Your task to perform on an android device: Search for pizza restaurants on Maps Image 0: 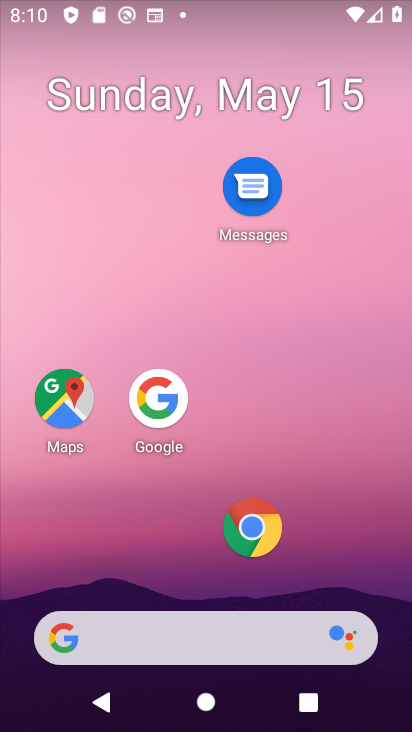
Step 0: press home button
Your task to perform on an android device: Search for pizza restaurants on Maps Image 1: 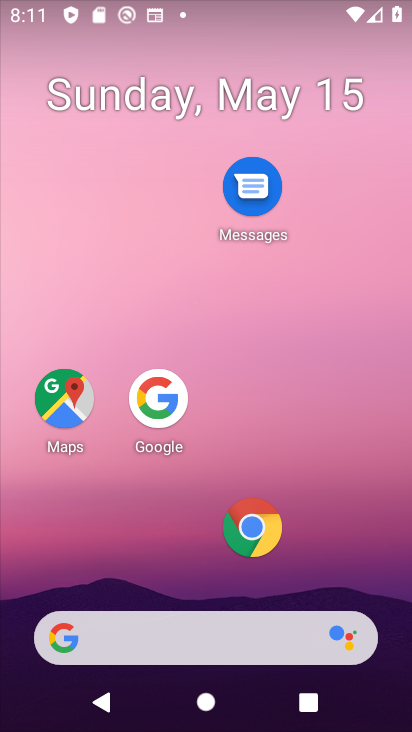
Step 1: click (78, 404)
Your task to perform on an android device: Search for pizza restaurants on Maps Image 2: 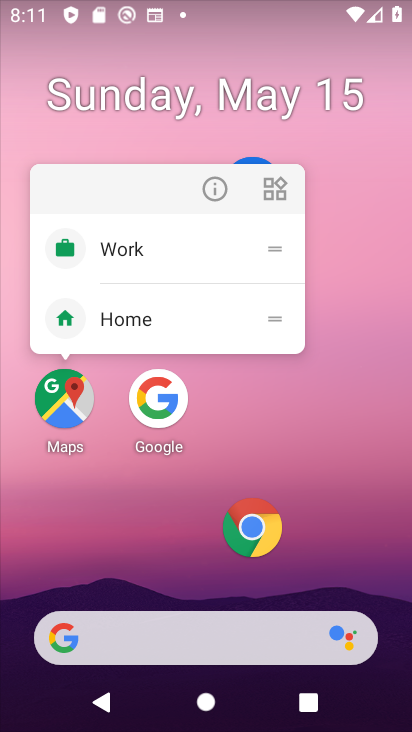
Step 2: click (75, 412)
Your task to perform on an android device: Search for pizza restaurants on Maps Image 3: 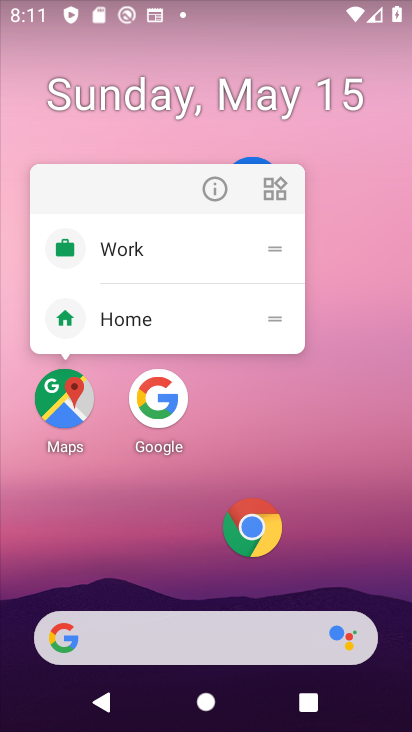
Step 3: click (75, 412)
Your task to perform on an android device: Search for pizza restaurants on Maps Image 4: 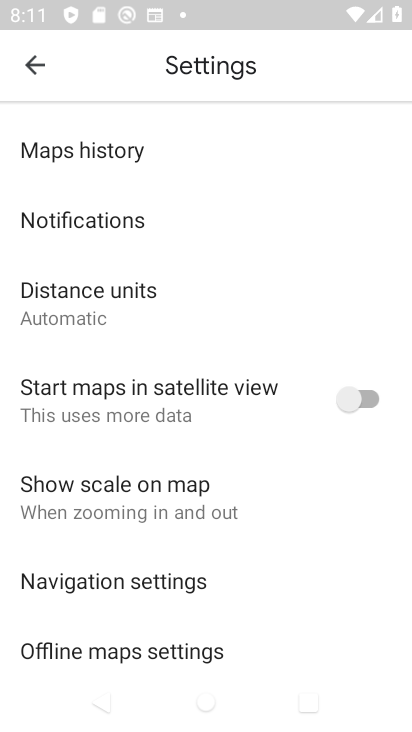
Step 4: click (41, 54)
Your task to perform on an android device: Search for pizza restaurants on Maps Image 5: 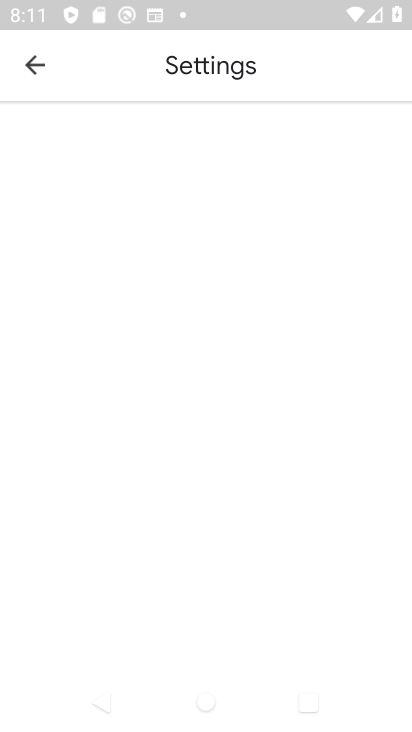
Step 5: click (41, 68)
Your task to perform on an android device: Search for pizza restaurants on Maps Image 6: 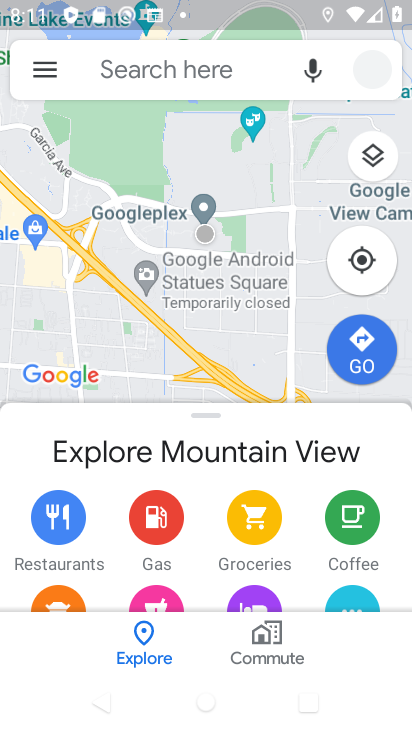
Step 6: click (181, 71)
Your task to perform on an android device: Search for pizza restaurants on Maps Image 7: 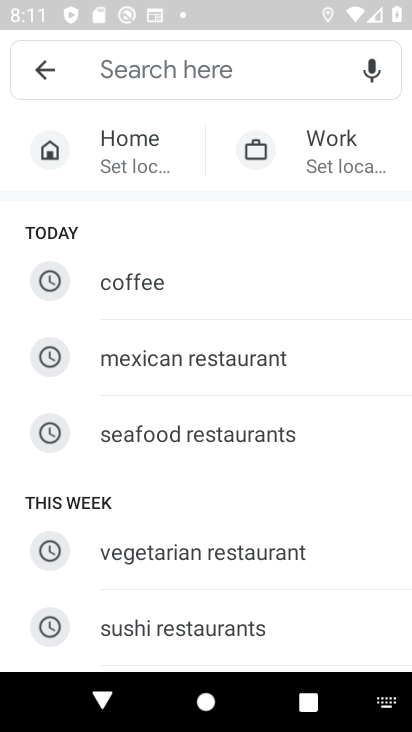
Step 7: drag from (183, 517) to (319, 175)
Your task to perform on an android device: Search for pizza restaurants on Maps Image 8: 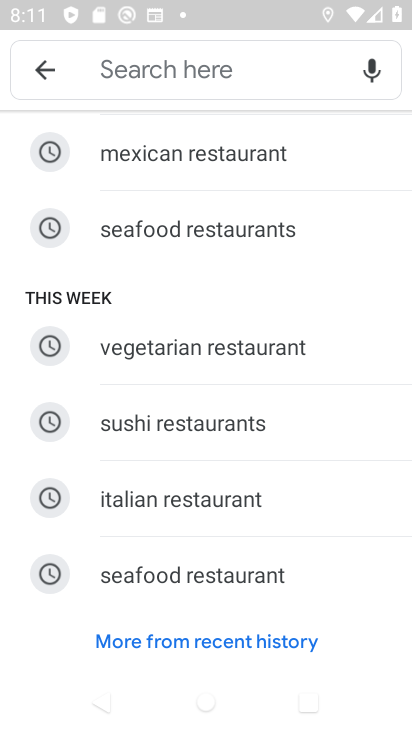
Step 8: drag from (239, 185) to (214, 413)
Your task to perform on an android device: Search for pizza restaurants on Maps Image 9: 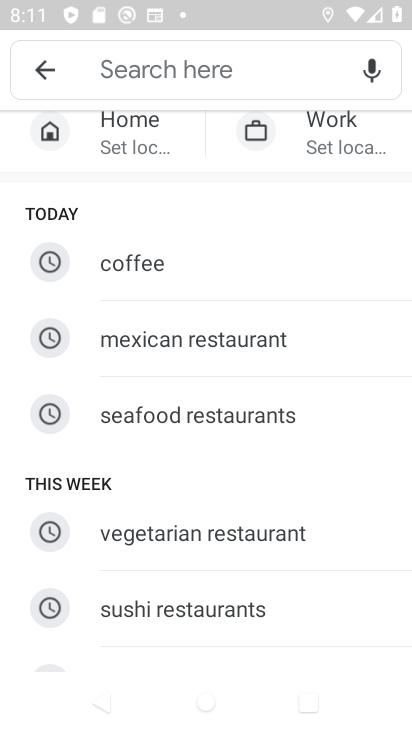
Step 9: click (141, 58)
Your task to perform on an android device: Search for pizza restaurants on Maps Image 10: 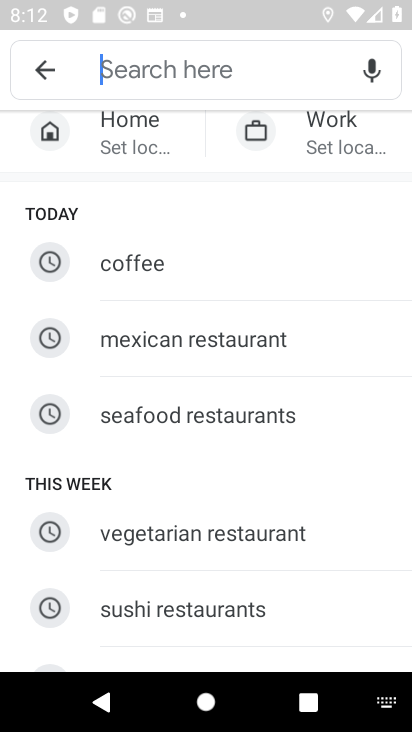
Step 10: type "pizza restaurats"
Your task to perform on an android device: Search for pizza restaurants on Maps Image 11: 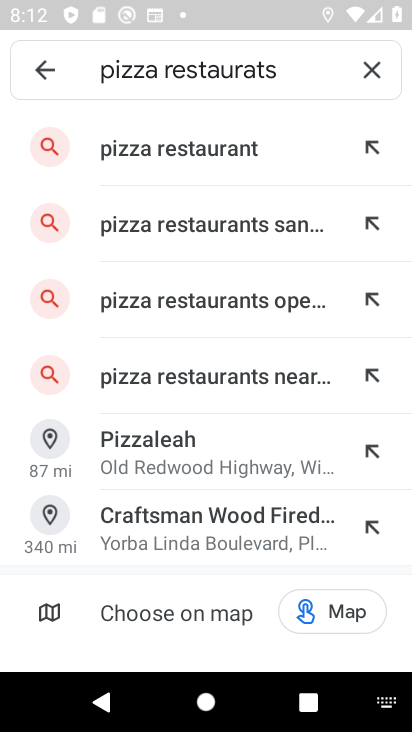
Step 11: click (229, 151)
Your task to perform on an android device: Search for pizza restaurants on Maps Image 12: 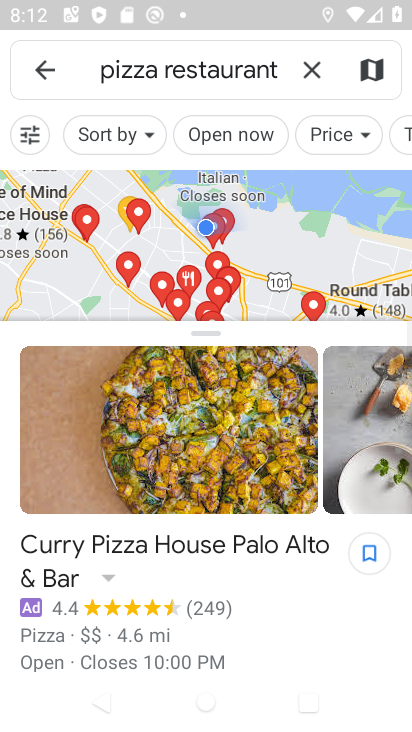
Step 12: task complete